Your task to perform on an android device: Open calendar and show me the fourth week of next month Image 0: 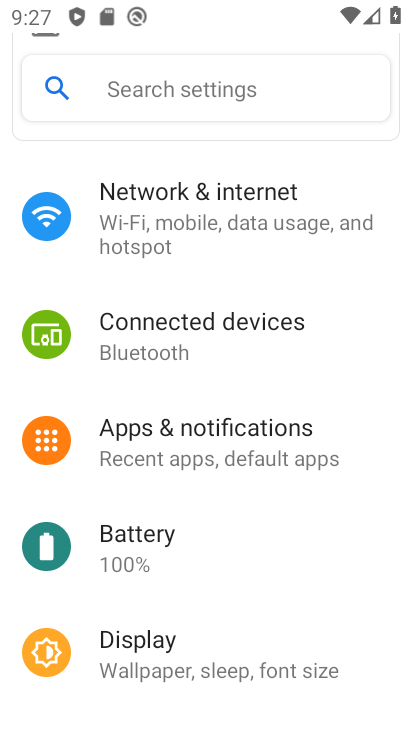
Step 0: press home button
Your task to perform on an android device: Open calendar and show me the fourth week of next month Image 1: 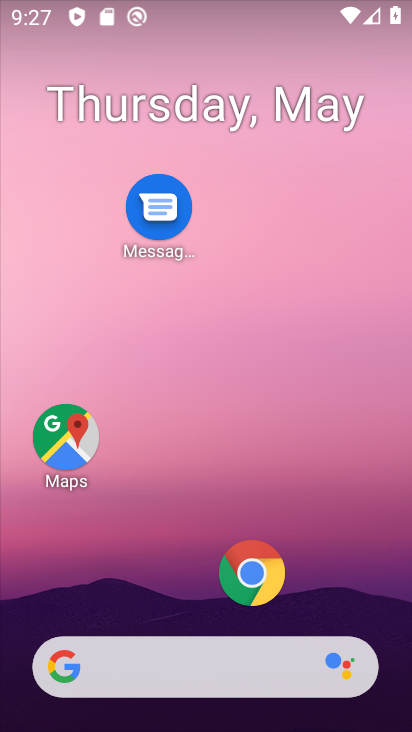
Step 1: drag from (203, 613) to (252, 16)
Your task to perform on an android device: Open calendar and show me the fourth week of next month Image 2: 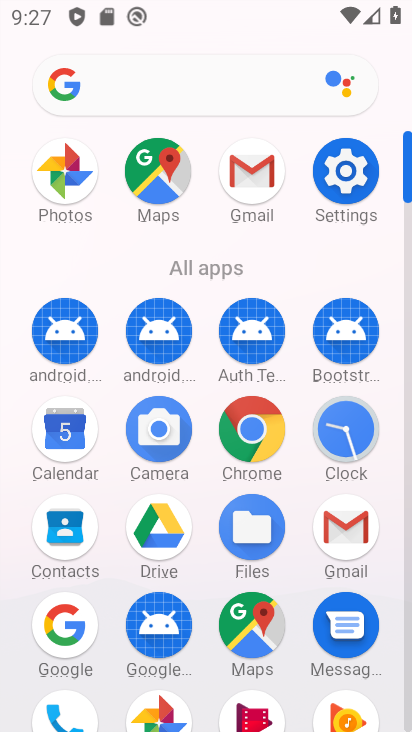
Step 2: click (66, 444)
Your task to perform on an android device: Open calendar and show me the fourth week of next month Image 3: 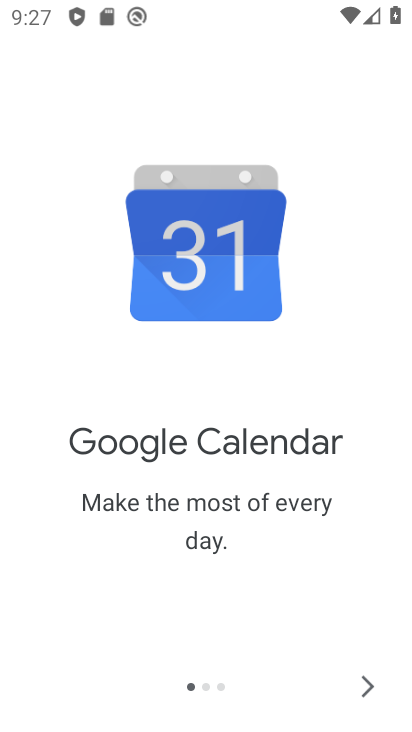
Step 3: click (373, 697)
Your task to perform on an android device: Open calendar and show me the fourth week of next month Image 4: 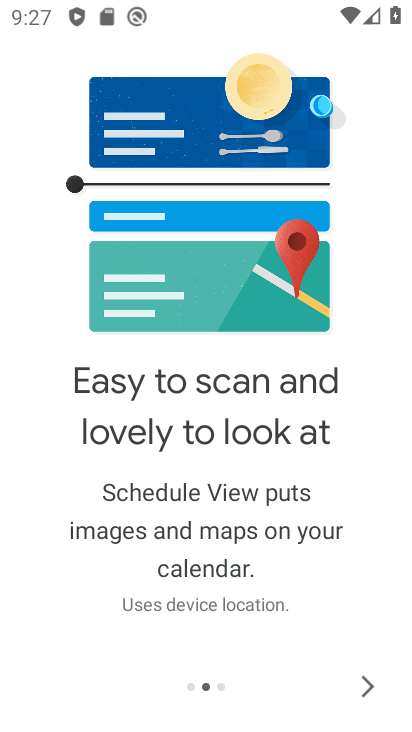
Step 4: click (365, 685)
Your task to perform on an android device: Open calendar and show me the fourth week of next month Image 5: 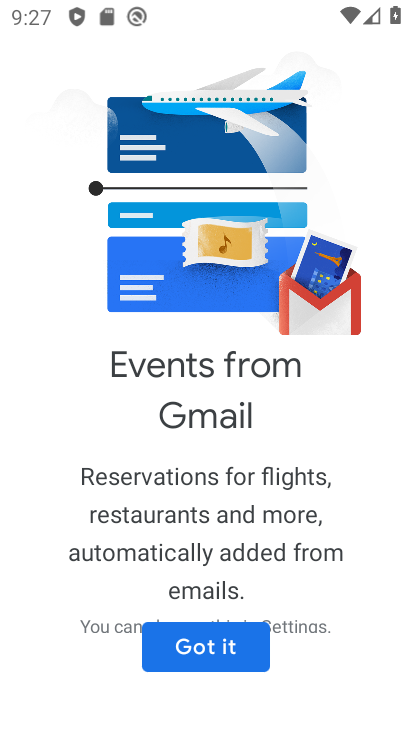
Step 5: click (205, 629)
Your task to perform on an android device: Open calendar and show me the fourth week of next month Image 6: 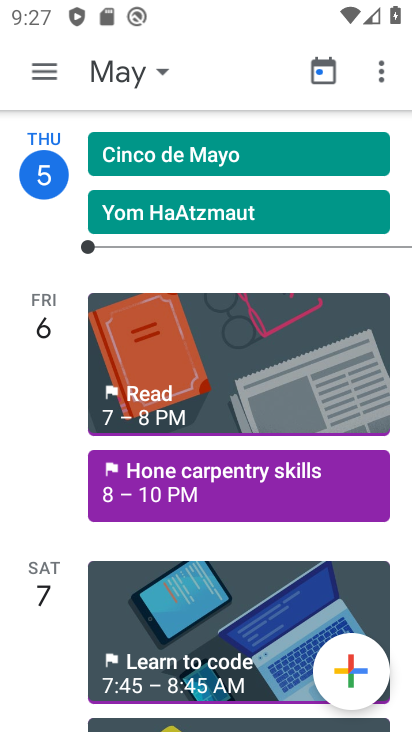
Step 6: click (33, 79)
Your task to perform on an android device: Open calendar and show me the fourth week of next month Image 7: 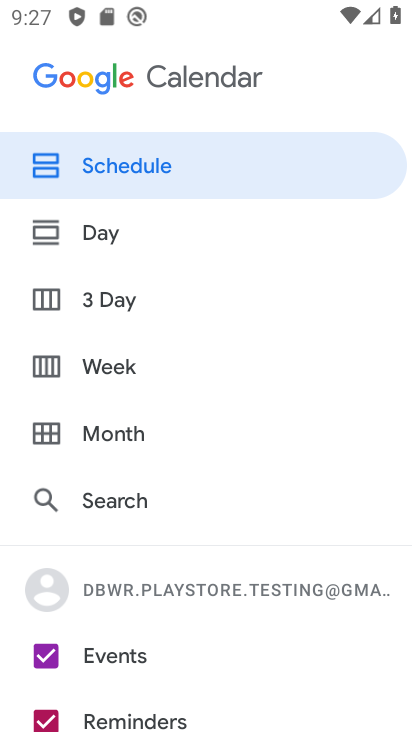
Step 7: click (97, 357)
Your task to perform on an android device: Open calendar and show me the fourth week of next month Image 8: 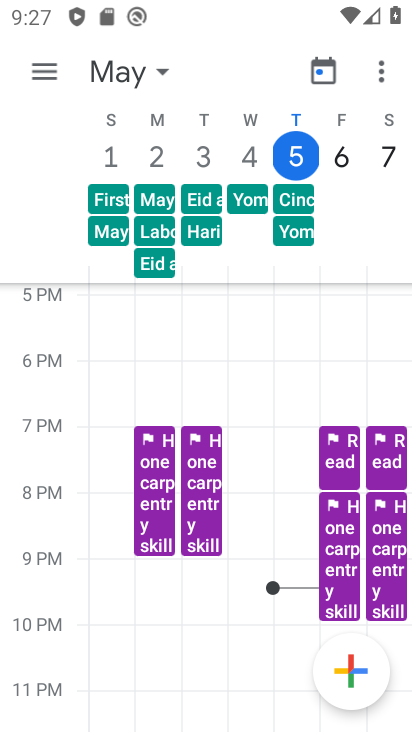
Step 8: task complete